Your task to perform on an android device: Search for flights from Sydney to Buenos aires Image 0: 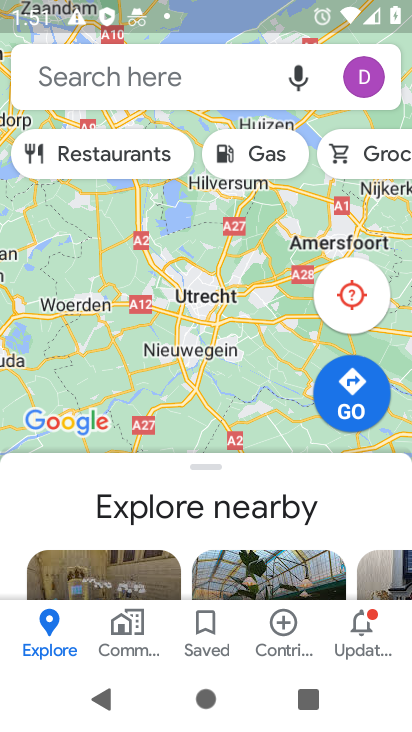
Step 0: press home button
Your task to perform on an android device: Search for flights from Sydney to Buenos aires Image 1: 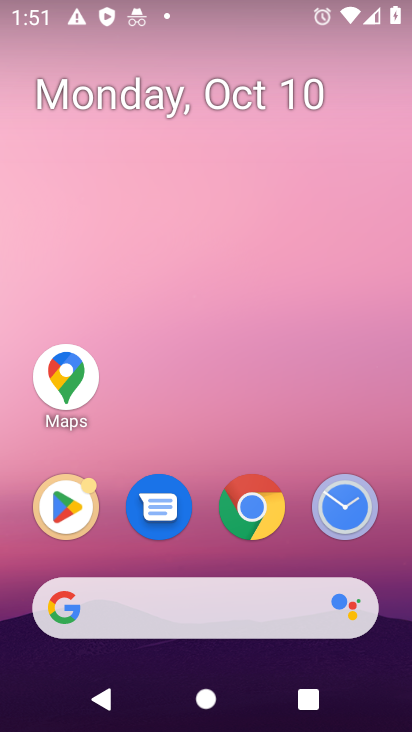
Step 1: click (236, 609)
Your task to perform on an android device: Search for flights from Sydney to Buenos aires Image 2: 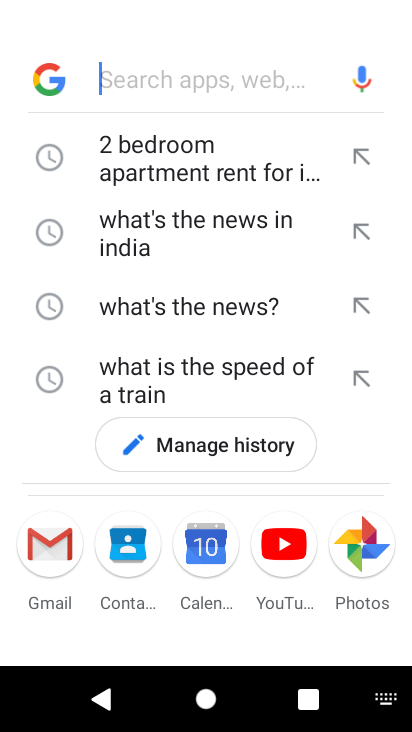
Step 2: press enter
Your task to perform on an android device: Search for flights from Sydney to Buenos aires Image 3: 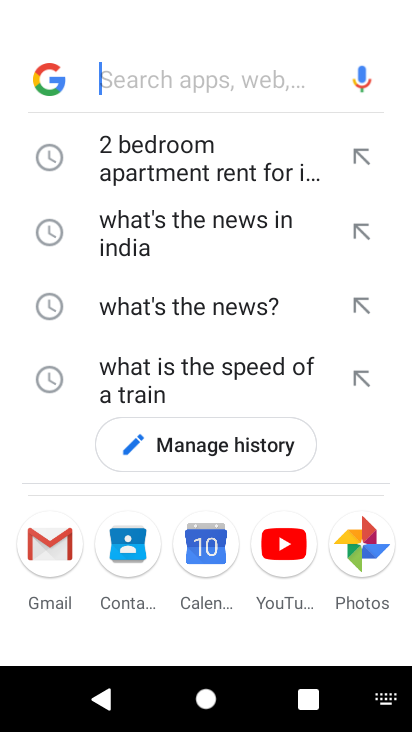
Step 3: type "flights from Sydney to Buenos aires"
Your task to perform on an android device: Search for flights from Sydney to Buenos aires Image 4: 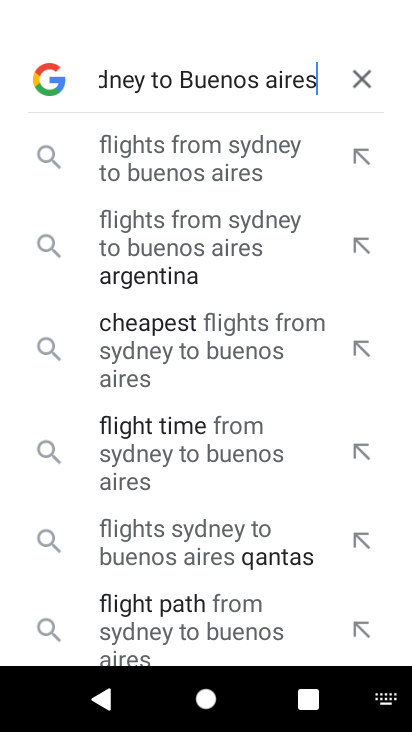
Step 4: press enter
Your task to perform on an android device: Search for flights from Sydney to Buenos aires Image 5: 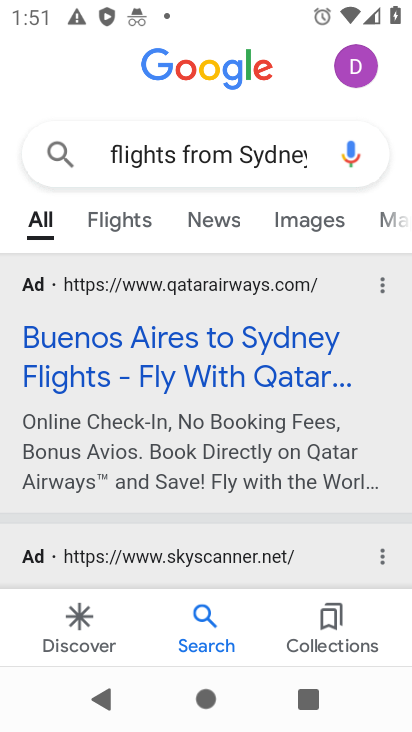
Step 5: drag from (255, 507) to (280, 341)
Your task to perform on an android device: Search for flights from Sydney to Buenos aires Image 6: 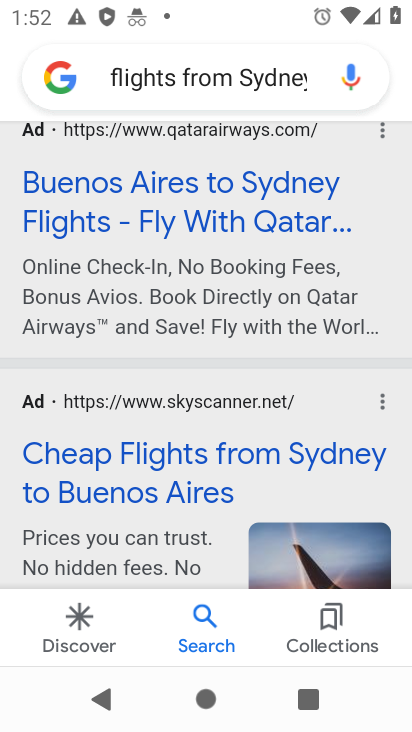
Step 6: drag from (274, 500) to (321, 265)
Your task to perform on an android device: Search for flights from Sydney to Buenos aires Image 7: 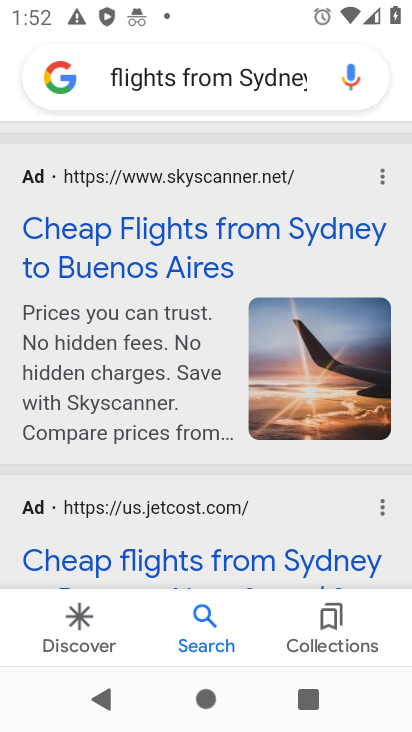
Step 7: drag from (291, 535) to (303, 248)
Your task to perform on an android device: Search for flights from Sydney to Buenos aires Image 8: 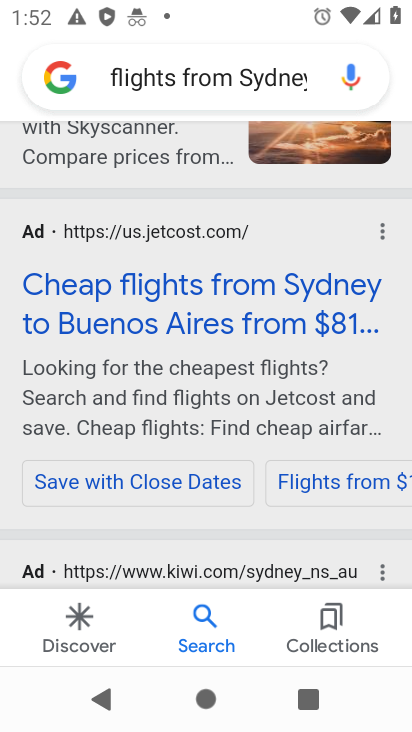
Step 8: drag from (266, 543) to (274, 243)
Your task to perform on an android device: Search for flights from Sydney to Buenos aires Image 9: 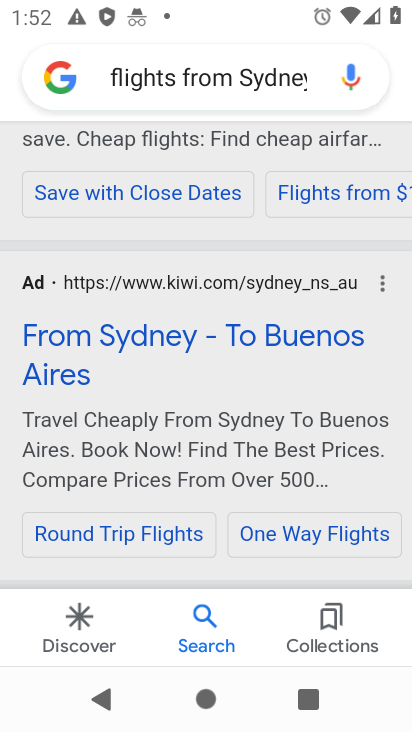
Step 9: drag from (226, 524) to (241, 197)
Your task to perform on an android device: Search for flights from Sydney to Buenos aires Image 10: 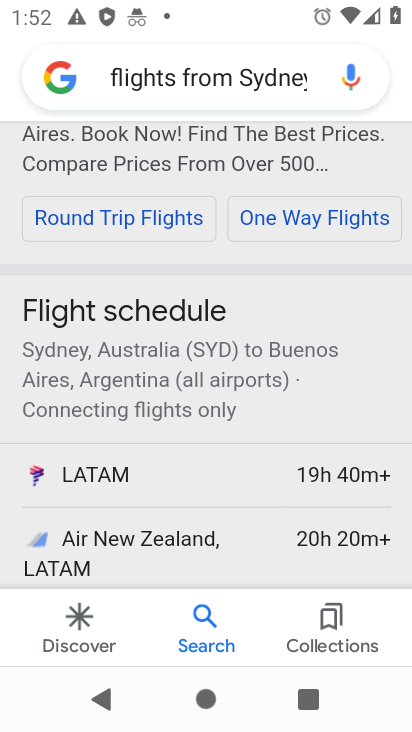
Step 10: drag from (227, 515) to (243, 312)
Your task to perform on an android device: Search for flights from Sydney to Buenos aires Image 11: 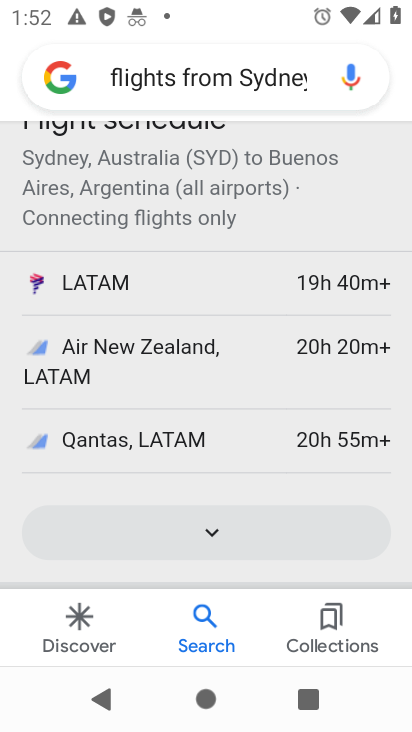
Step 11: click (205, 544)
Your task to perform on an android device: Search for flights from Sydney to Buenos aires Image 12: 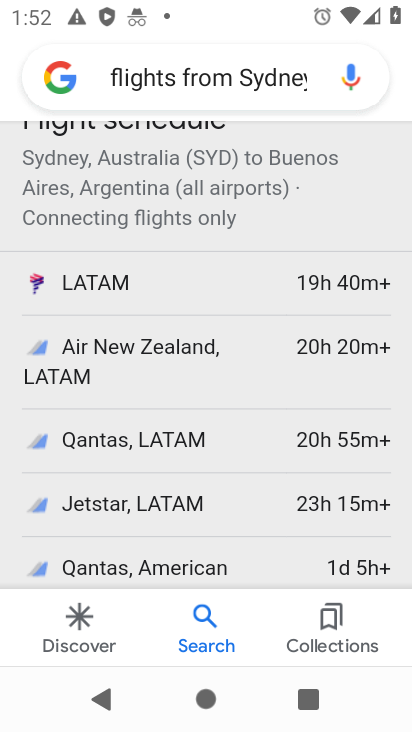
Step 12: task complete